Your task to perform on an android device: What's the weather? Image 0: 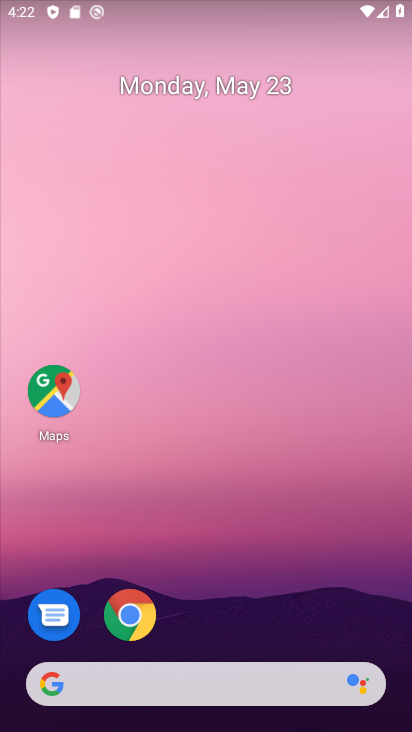
Step 0: click (218, 685)
Your task to perform on an android device: What's the weather? Image 1: 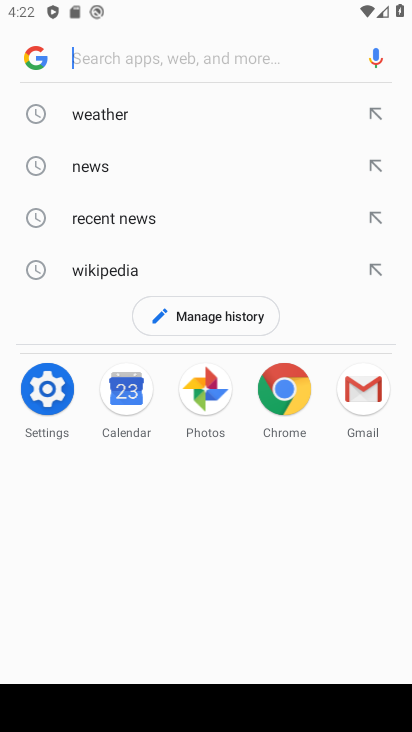
Step 1: click (98, 116)
Your task to perform on an android device: What's the weather? Image 2: 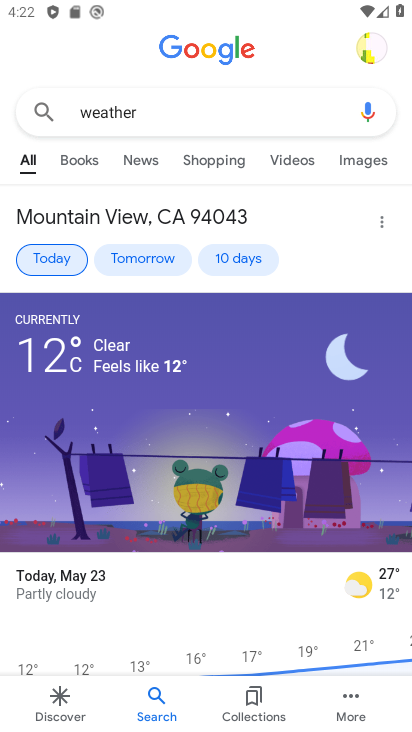
Step 2: click (55, 250)
Your task to perform on an android device: What's the weather? Image 3: 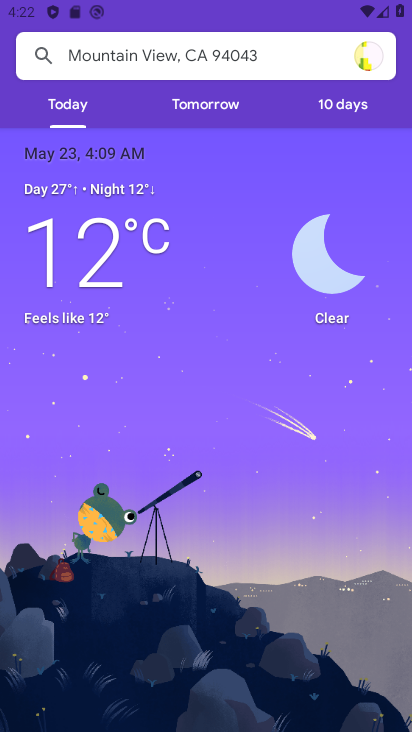
Step 3: task complete